Your task to perform on an android device: turn on showing notifications on the lock screen Image 0: 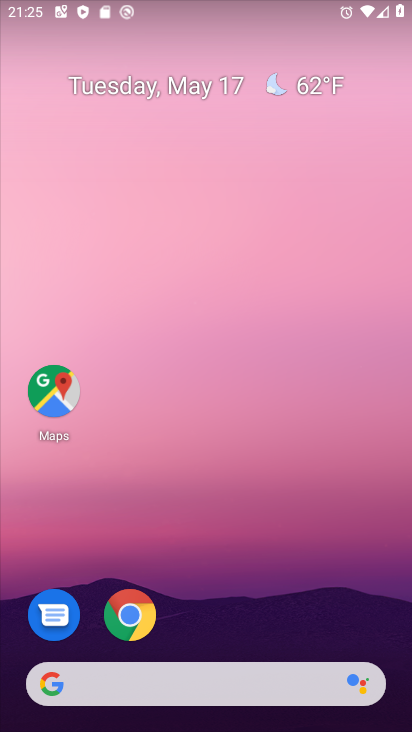
Step 0: drag from (232, 620) to (278, 62)
Your task to perform on an android device: turn on showing notifications on the lock screen Image 1: 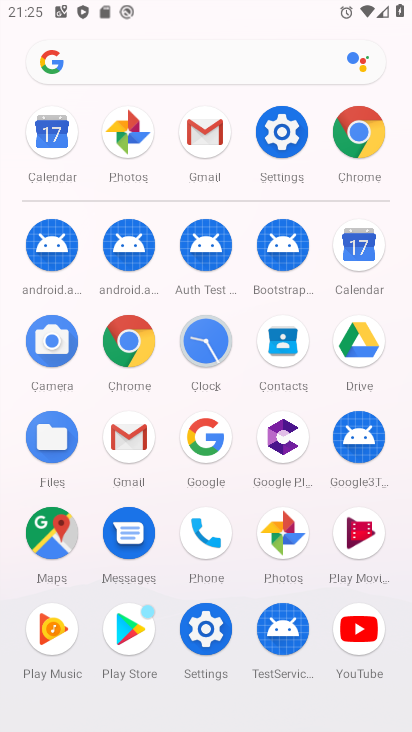
Step 1: click (199, 628)
Your task to perform on an android device: turn on showing notifications on the lock screen Image 2: 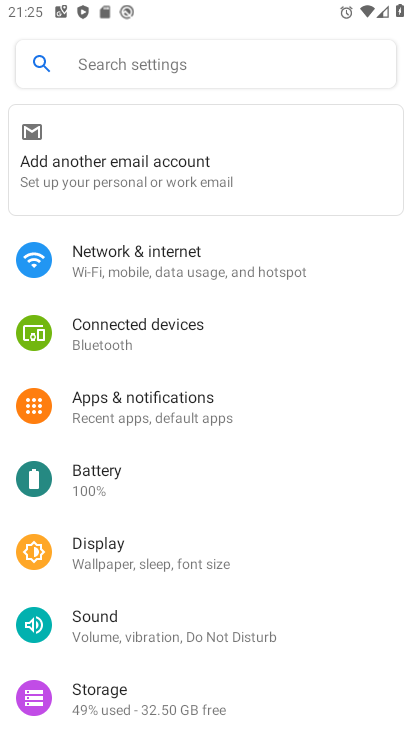
Step 2: click (193, 401)
Your task to perform on an android device: turn on showing notifications on the lock screen Image 3: 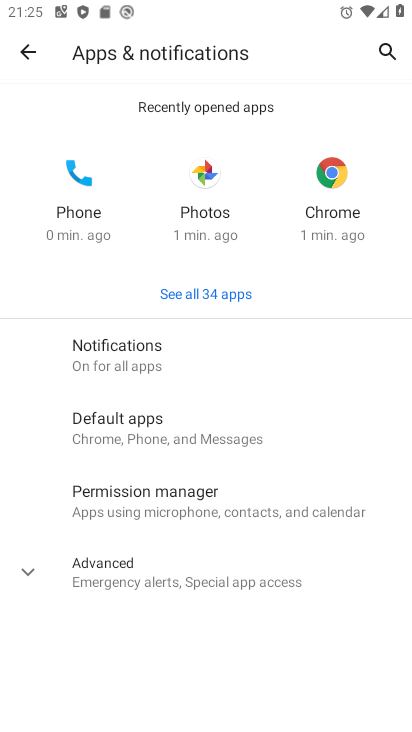
Step 3: click (133, 361)
Your task to perform on an android device: turn on showing notifications on the lock screen Image 4: 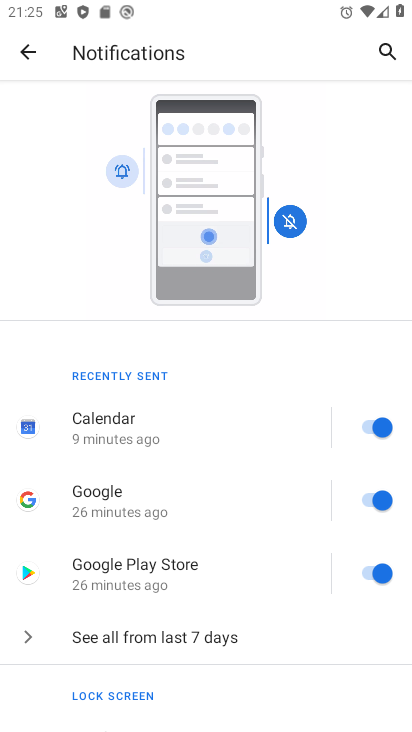
Step 4: drag from (266, 621) to (285, 232)
Your task to perform on an android device: turn on showing notifications on the lock screen Image 5: 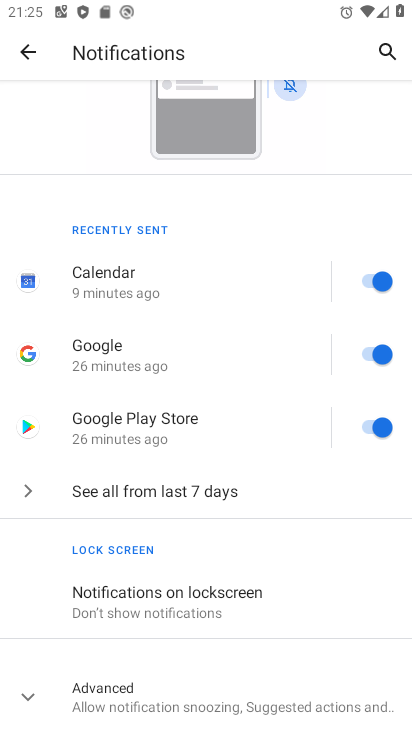
Step 5: click (218, 586)
Your task to perform on an android device: turn on showing notifications on the lock screen Image 6: 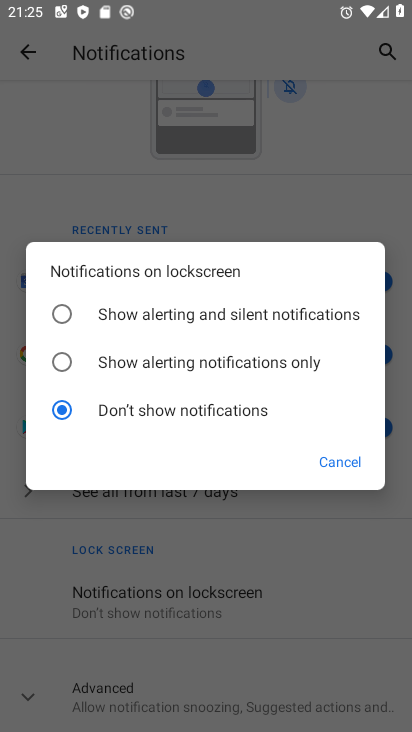
Step 6: click (127, 366)
Your task to perform on an android device: turn on showing notifications on the lock screen Image 7: 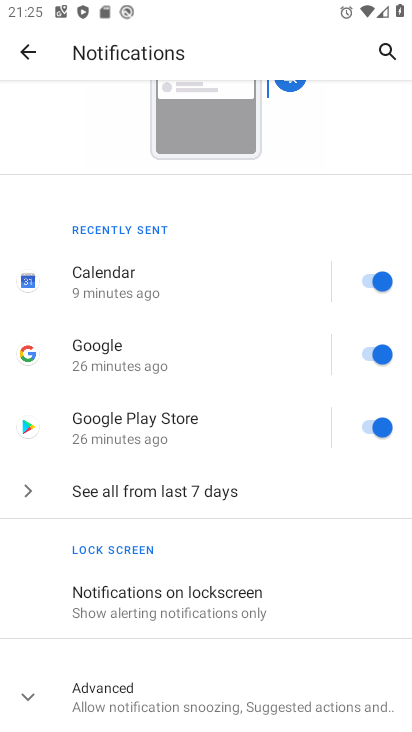
Step 7: task complete